Your task to perform on an android device: read, delete, or share a saved page in the chrome app Image 0: 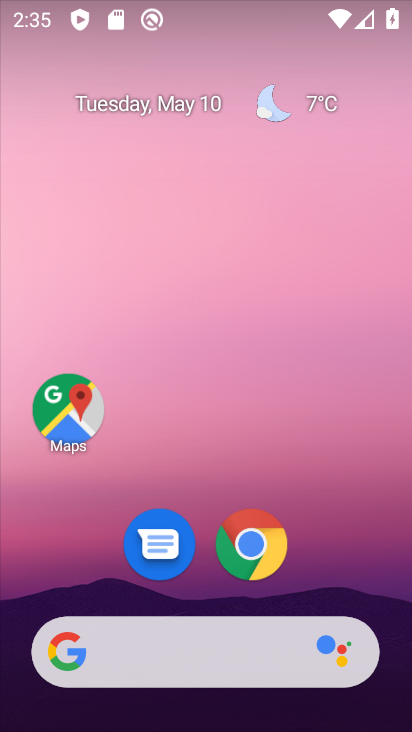
Step 0: drag from (352, 559) to (330, 49)
Your task to perform on an android device: read, delete, or share a saved page in the chrome app Image 1: 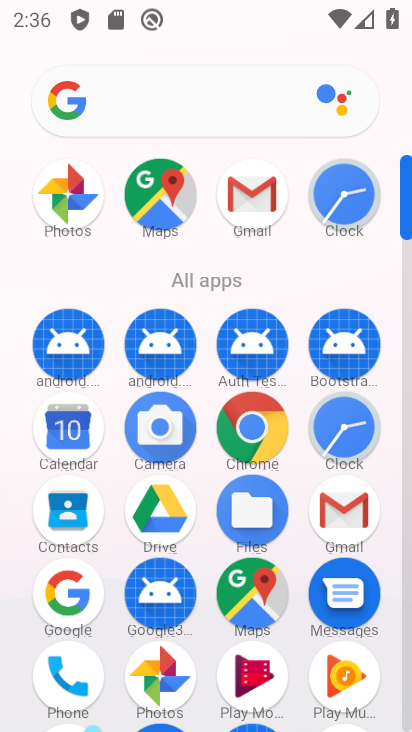
Step 1: click (237, 438)
Your task to perform on an android device: read, delete, or share a saved page in the chrome app Image 2: 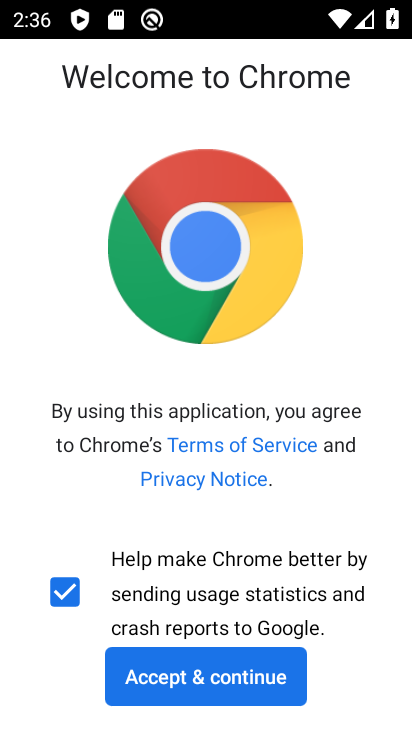
Step 2: click (155, 684)
Your task to perform on an android device: read, delete, or share a saved page in the chrome app Image 3: 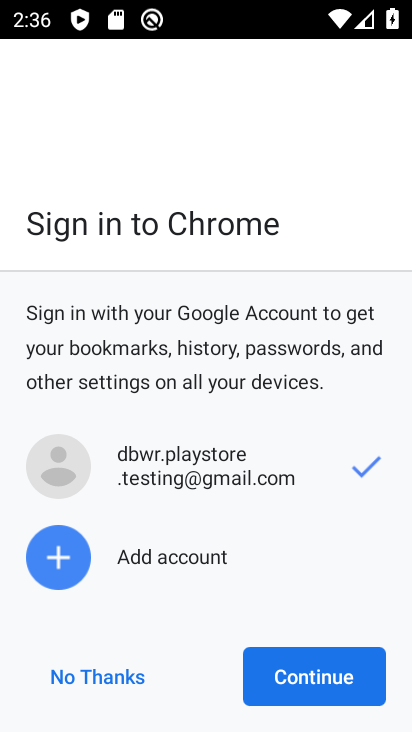
Step 3: click (278, 681)
Your task to perform on an android device: read, delete, or share a saved page in the chrome app Image 4: 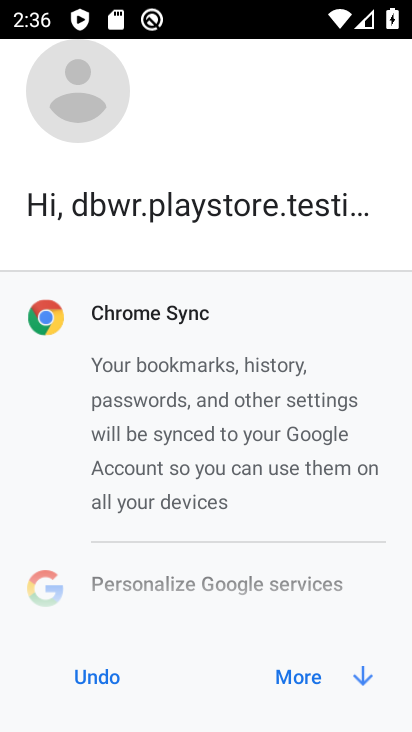
Step 4: click (285, 681)
Your task to perform on an android device: read, delete, or share a saved page in the chrome app Image 5: 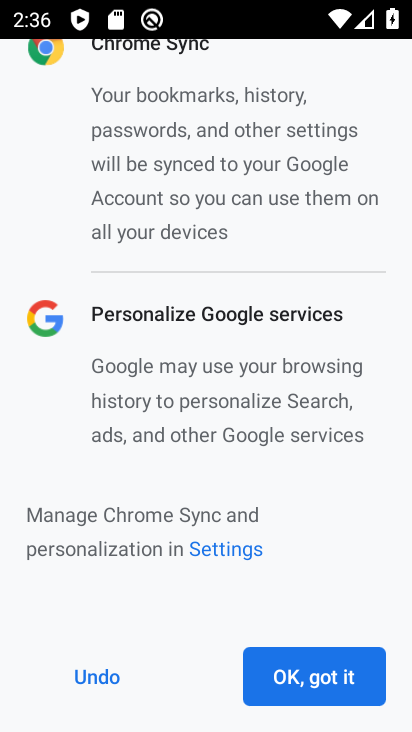
Step 5: click (285, 681)
Your task to perform on an android device: read, delete, or share a saved page in the chrome app Image 6: 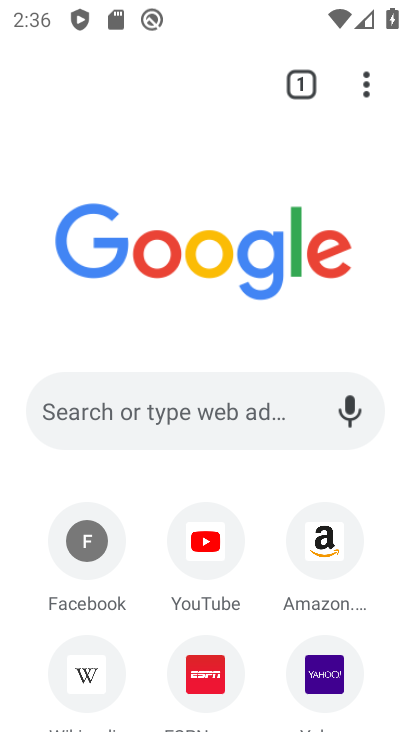
Step 6: task complete